Your task to perform on an android device: Add "logitech g pro" to the cart on amazon.com Image 0: 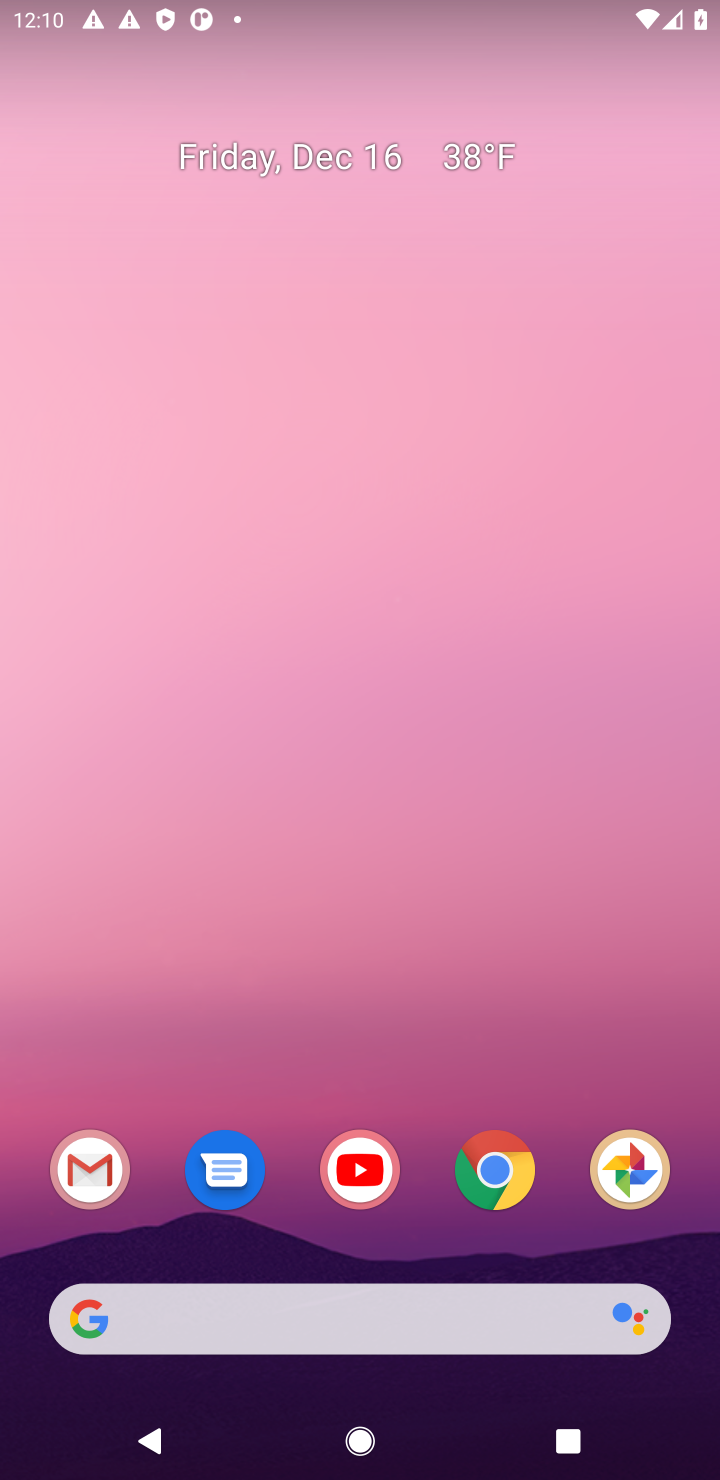
Step 0: click (498, 1198)
Your task to perform on an android device: Add "logitech g pro" to the cart on amazon.com Image 1: 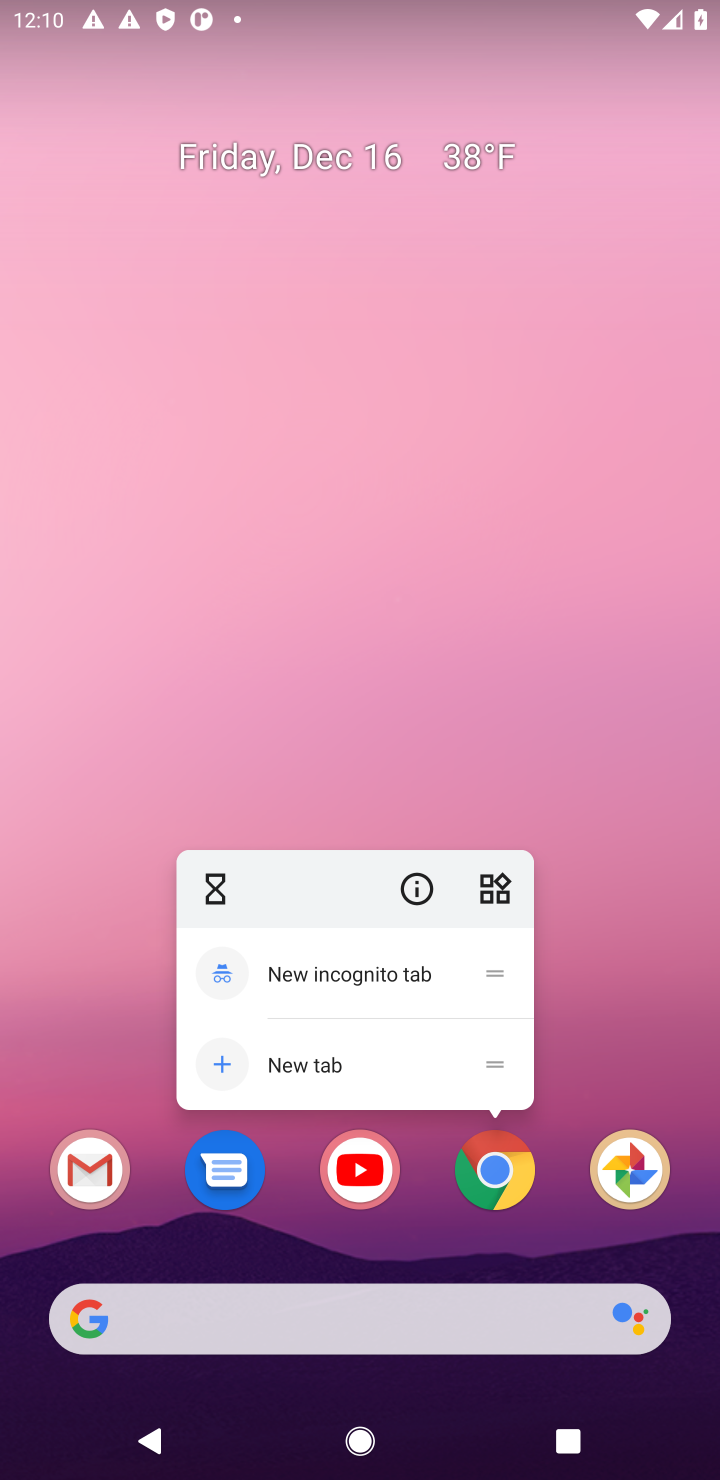
Step 1: click (490, 1180)
Your task to perform on an android device: Add "logitech g pro" to the cart on amazon.com Image 2: 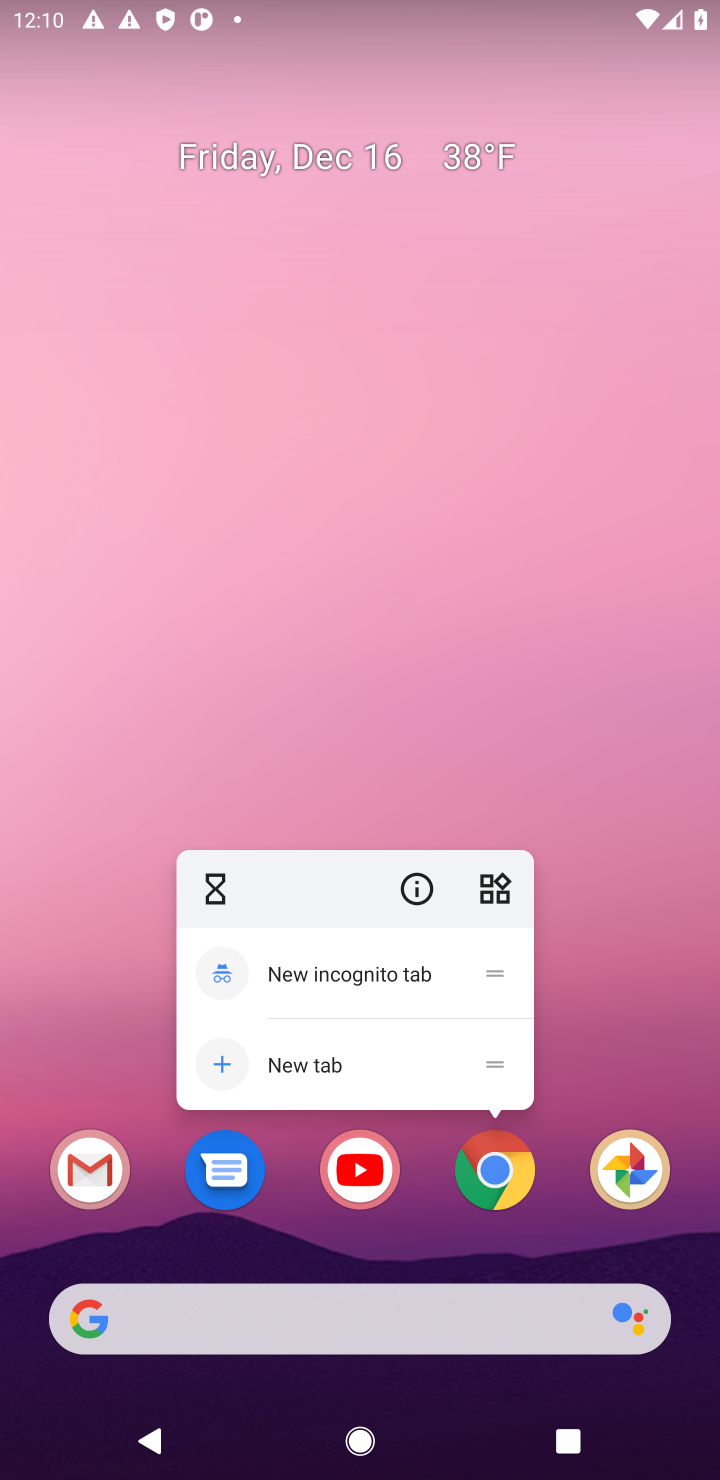
Step 2: click (490, 1180)
Your task to perform on an android device: Add "logitech g pro" to the cart on amazon.com Image 3: 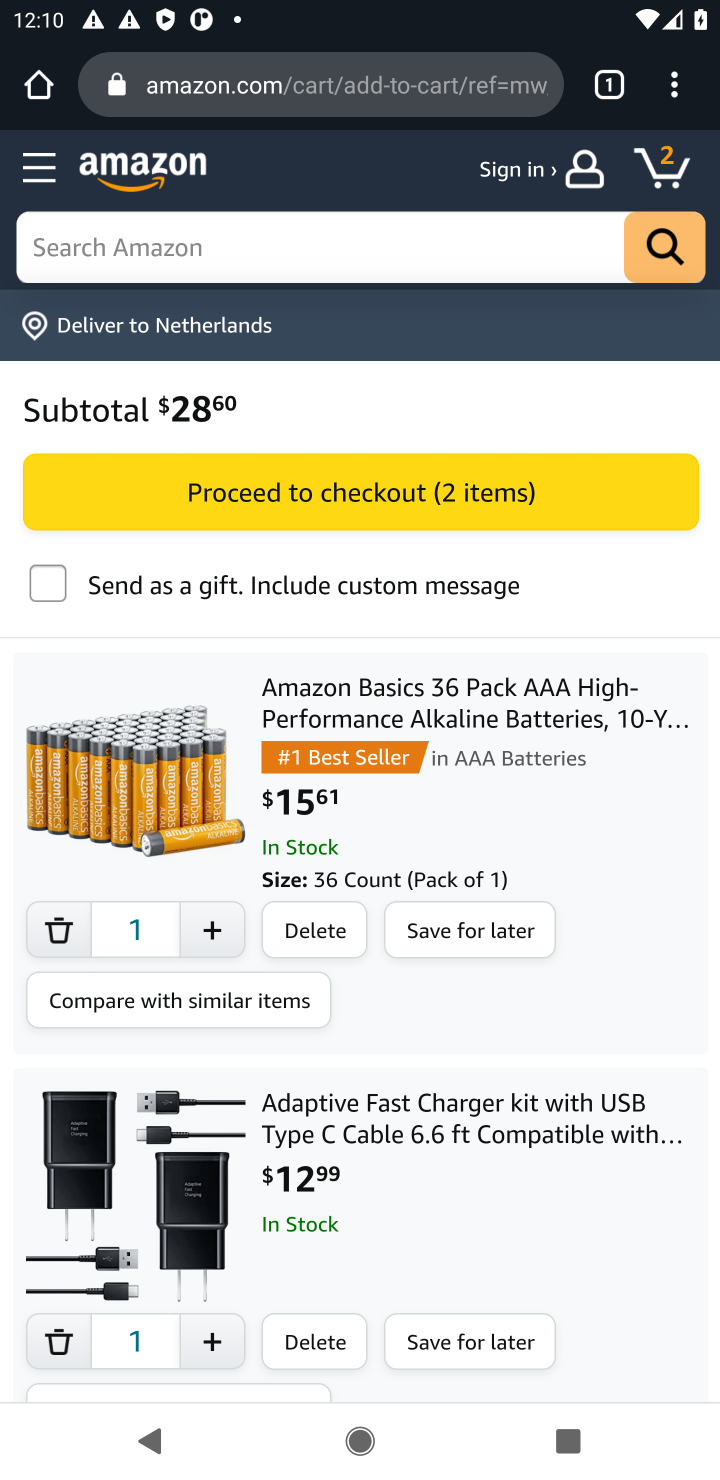
Step 3: click (296, 245)
Your task to perform on an android device: Add "logitech g pro" to the cart on amazon.com Image 4: 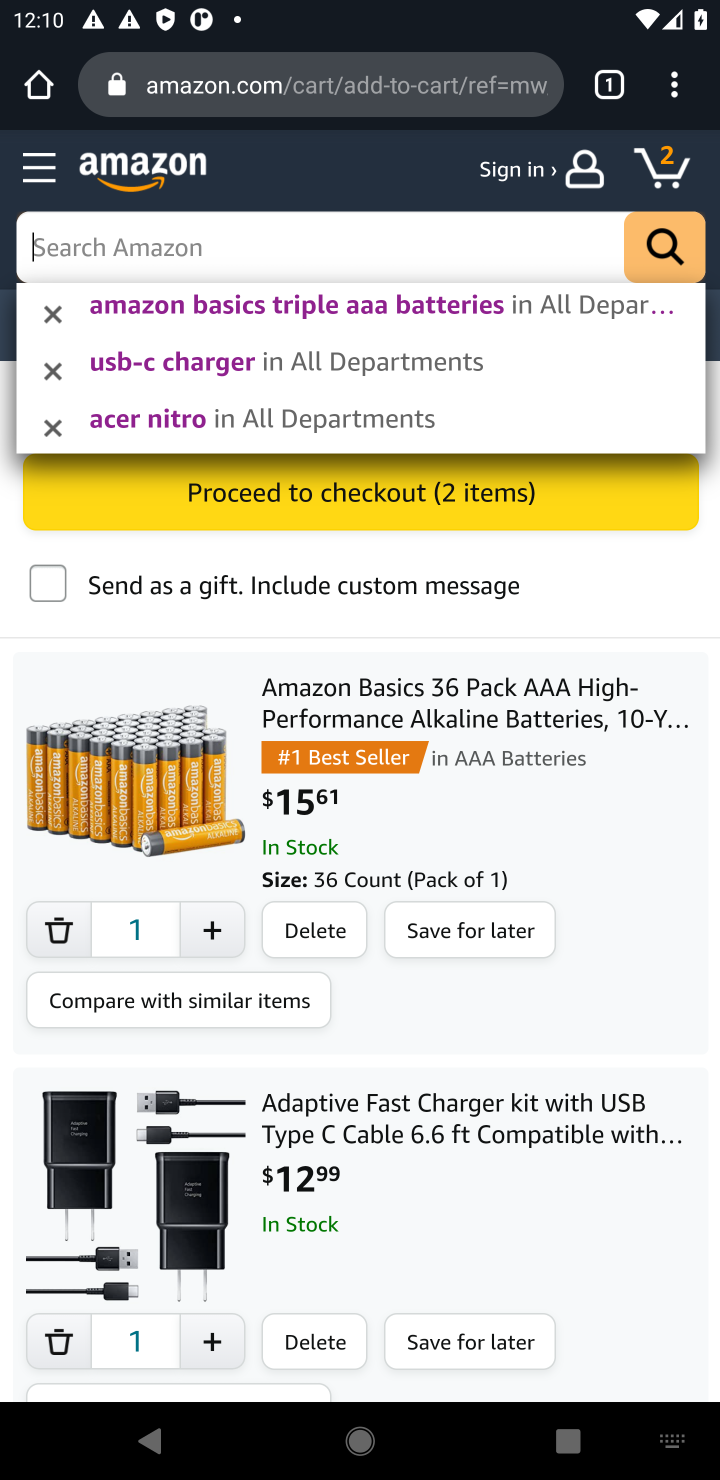
Step 4: type "logitech g pro"
Your task to perform on an android device: Add "logitech g pro" to the cart on amazon.com Image 5: 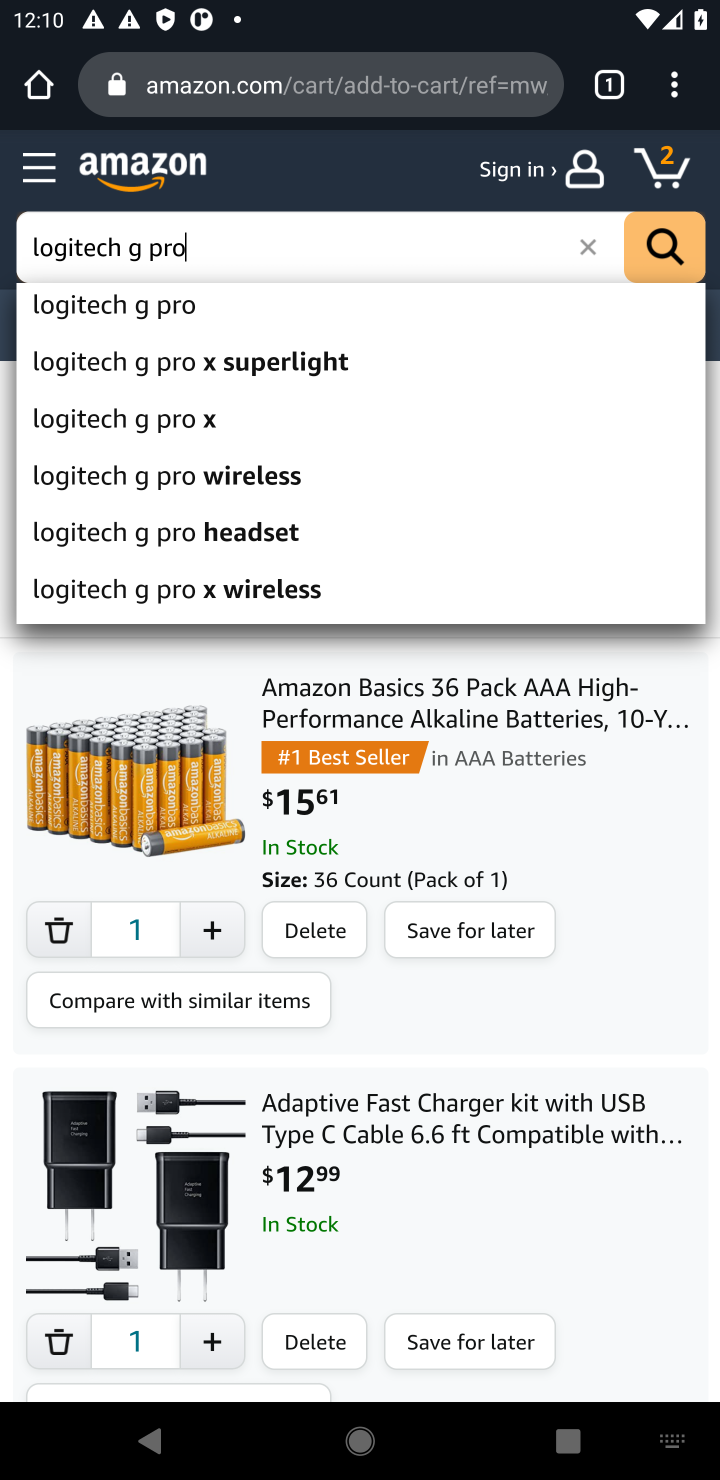
Step 5: click (147, 309)
Your task to perform on an android device: Add "logitech g pro" to the cart on amazon.com Image 6: 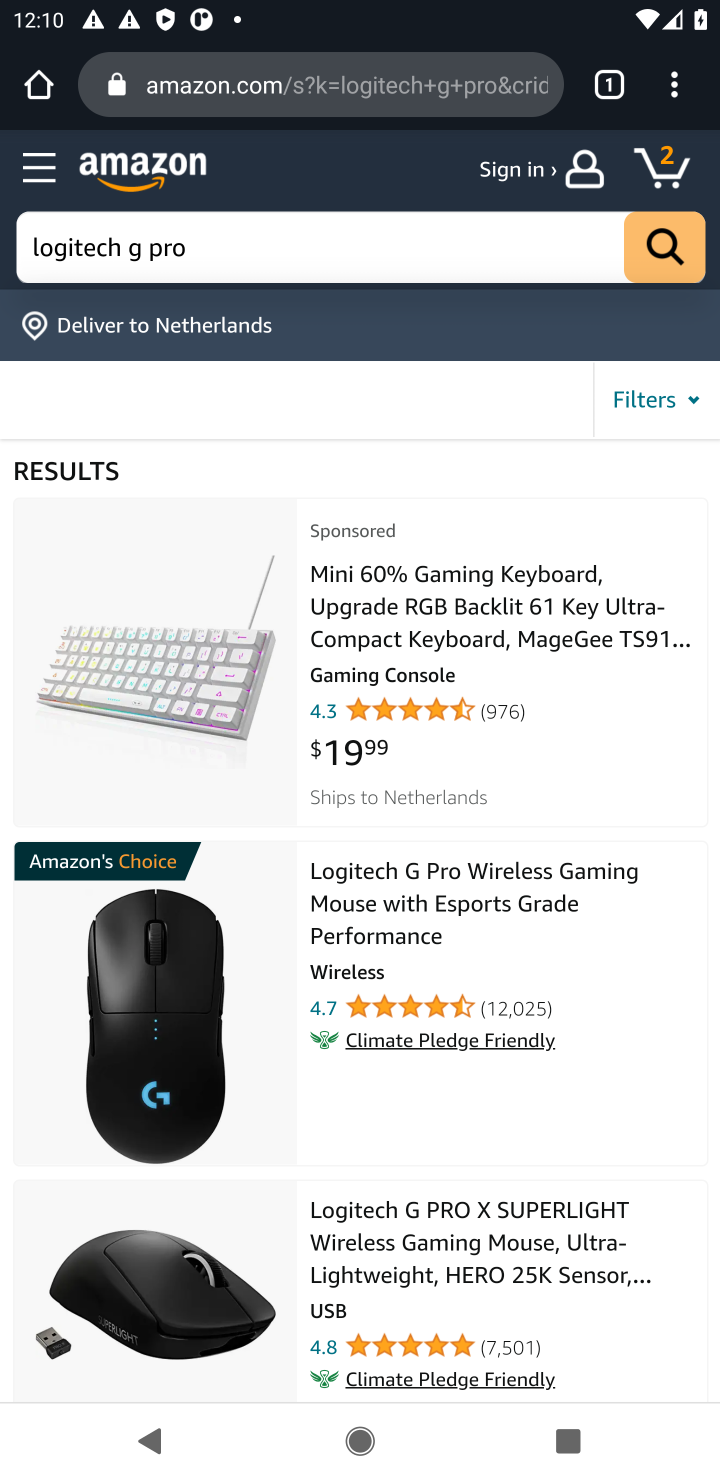
Step 6: drag from (243, 1041) to (253, 441)
Your task to perform on an android device: Add "logitech g pro" to the cart on amazon.com Image 7: 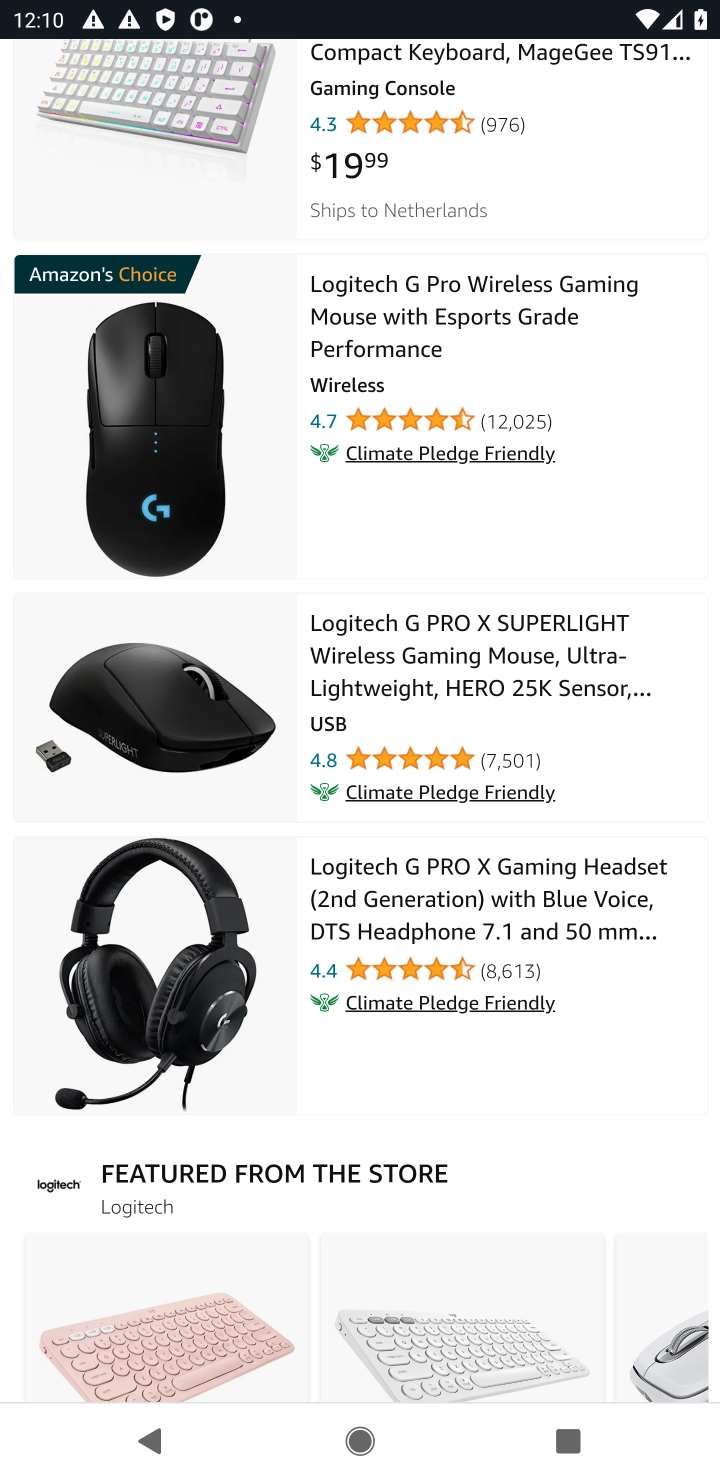
Step 7: drag from (280, 868) to (289, 388)
Your task to perform on an android device: Add "logitech g pro" to the cart on amazon.com Image 8: 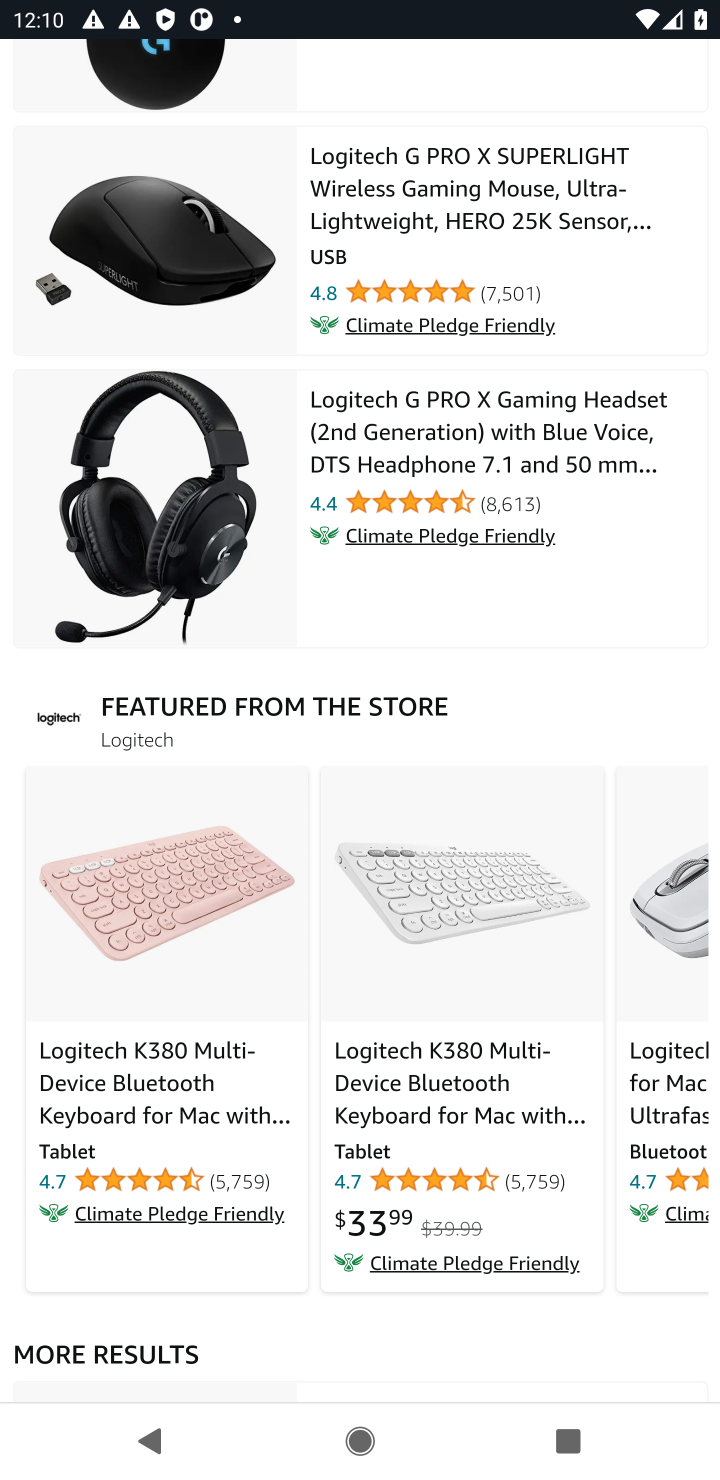
Step 8: drag from (244, 1014) to (286, 390)
Your task to perform on an android device: Add "logitech g pro" to the cart on amazon.com Image 9: 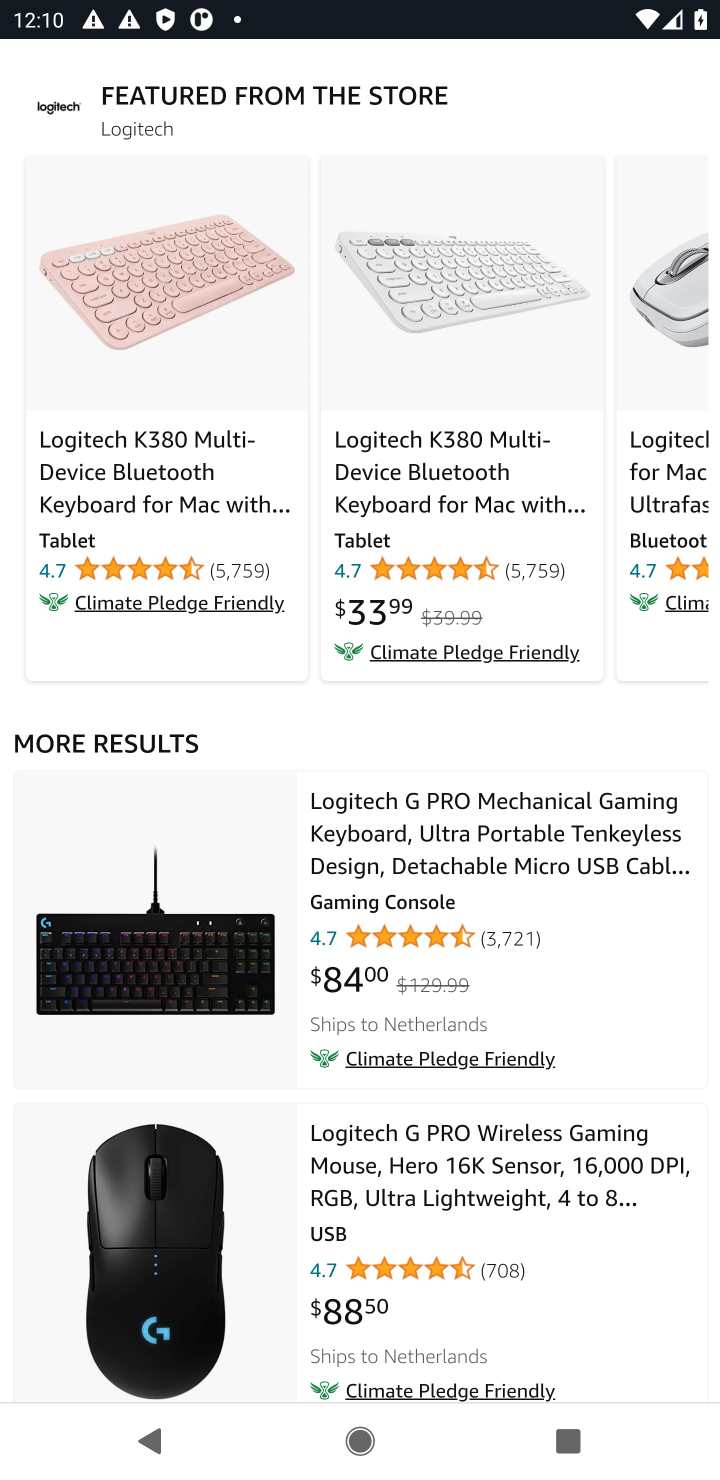
Step 9: click (434, 876)
Your task to perform on an android device: Add "logitech g pro" to the cart on amazon.com Image 10: 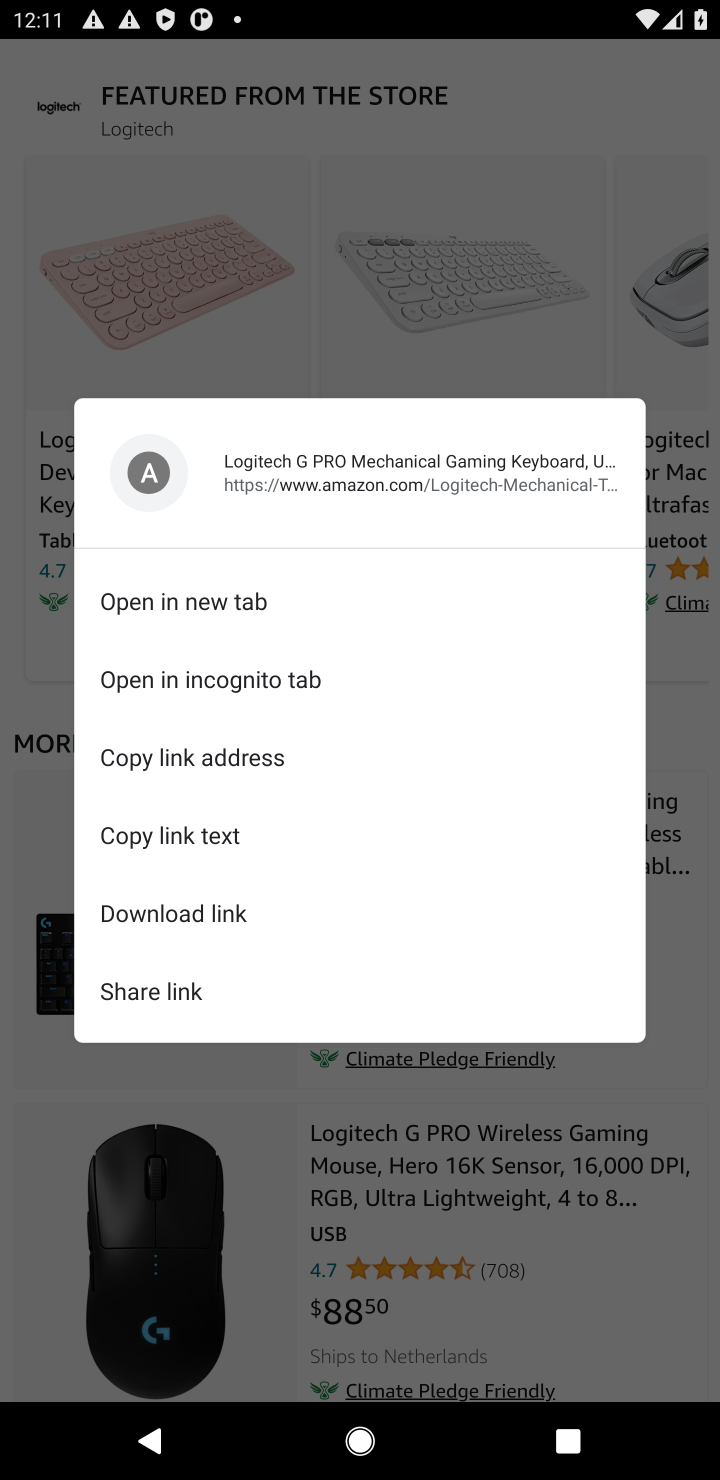
Step 10: click (675, 853)
Your task to perform on an android device: Add "logitech g pro" to the cart on amazon.com Image 11: 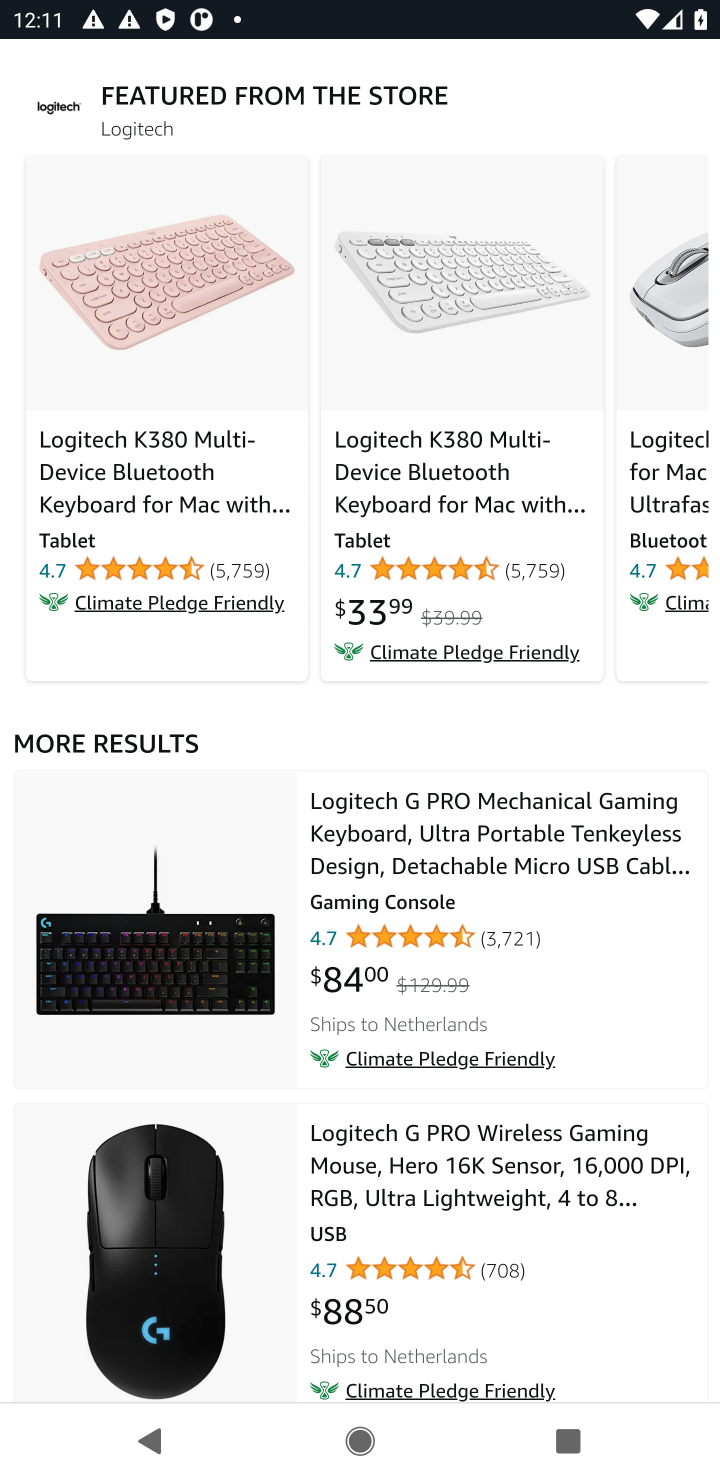
Step 11: click (522, 839)
Your task to perform on an android device: Add "logitech g pro" to the cart on amazon.com Image 12: 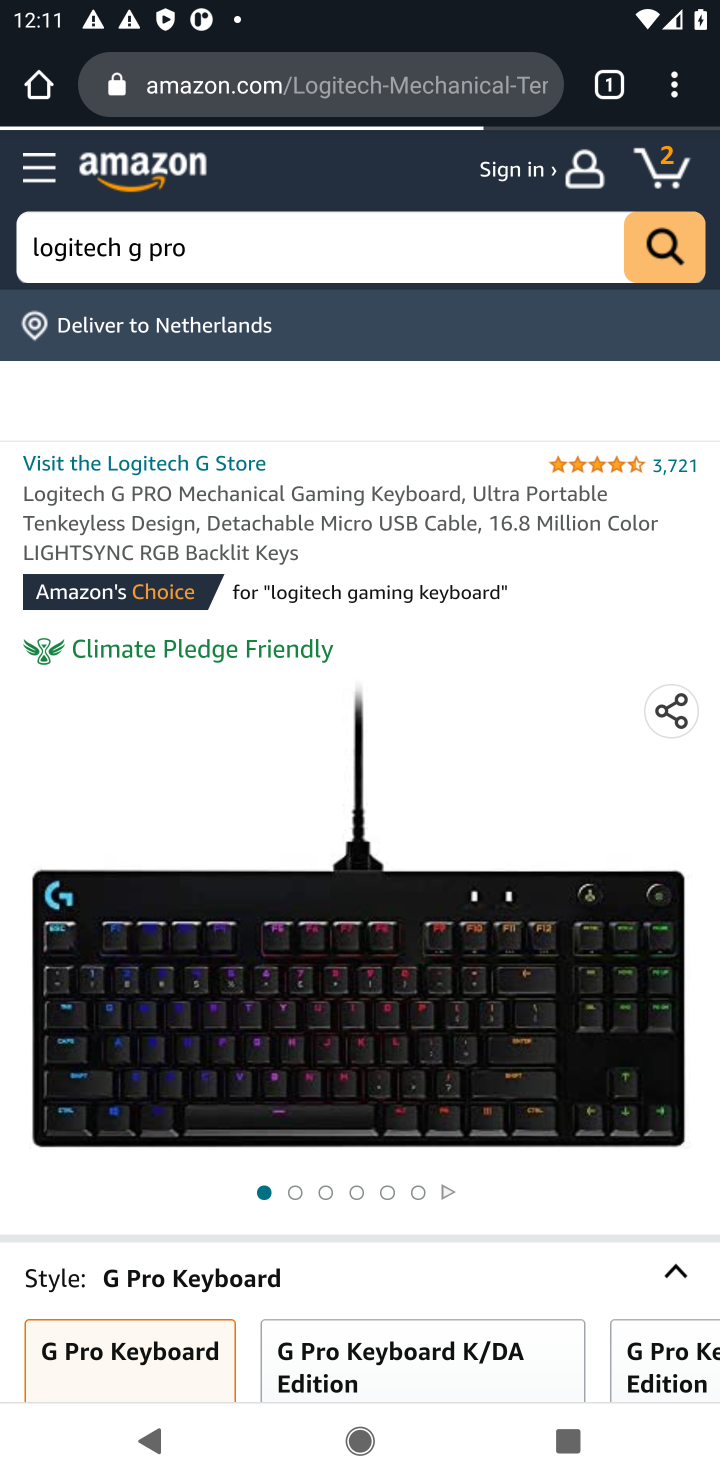
Step 12: drag from (395, 1187) to (395, 538)
Your task to perform on an android device: Add "logitech g pro" to the cart on amazon.com Image 13: 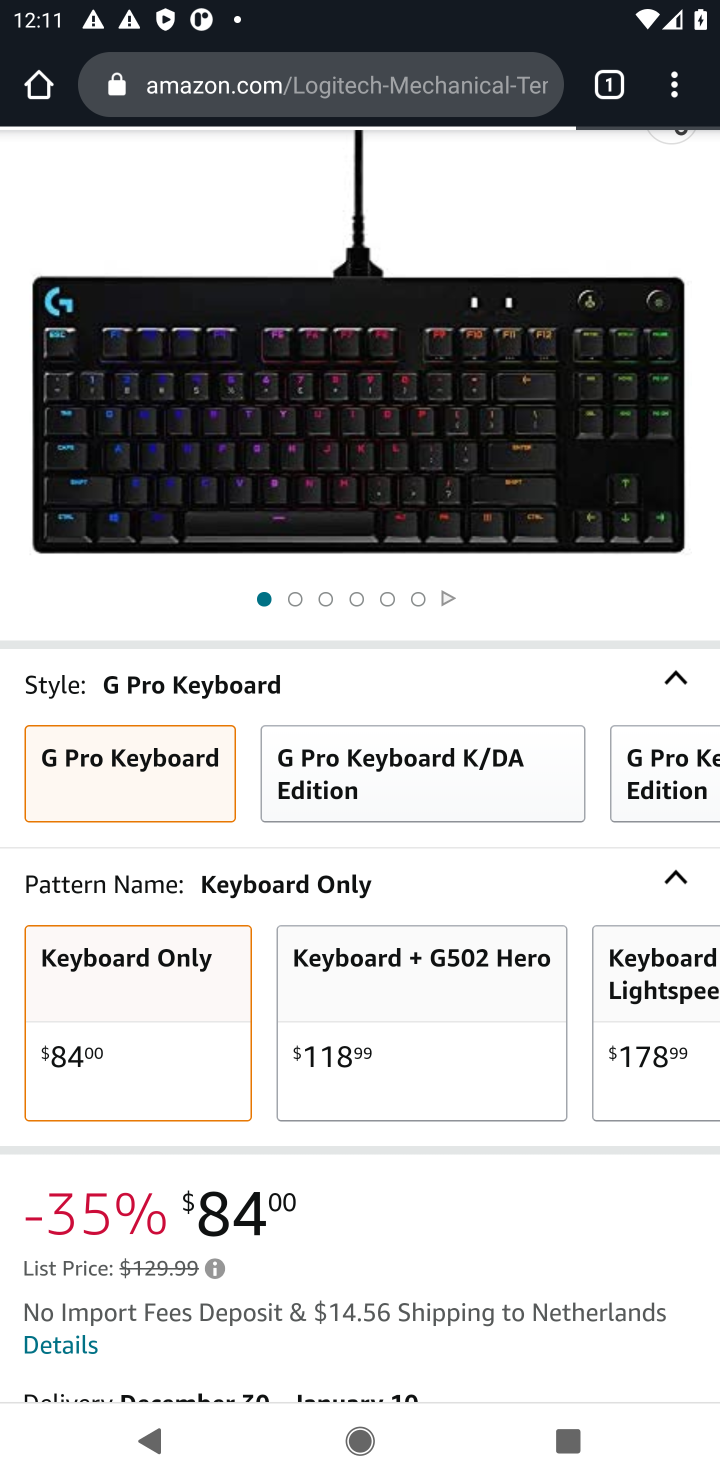
Step 13: drag from (319, 1058) to (334, 534)
Your task to perform on an android device: Add "logitech g pro" to the cart on amazon.com Image 14: 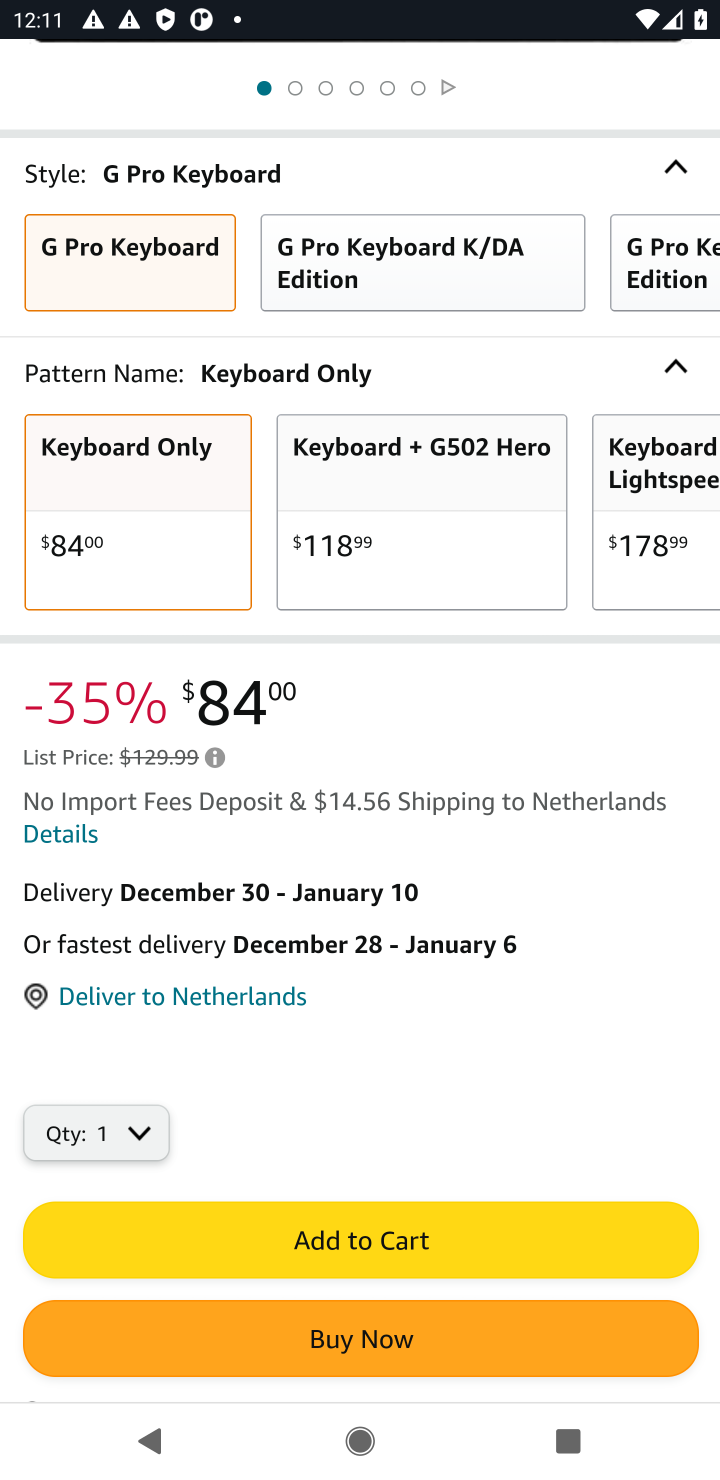
Step 14: click (320, 1227)
Your task to perform on an android device: Add "logitech g pro" to the cart on amazon.com Image 15: 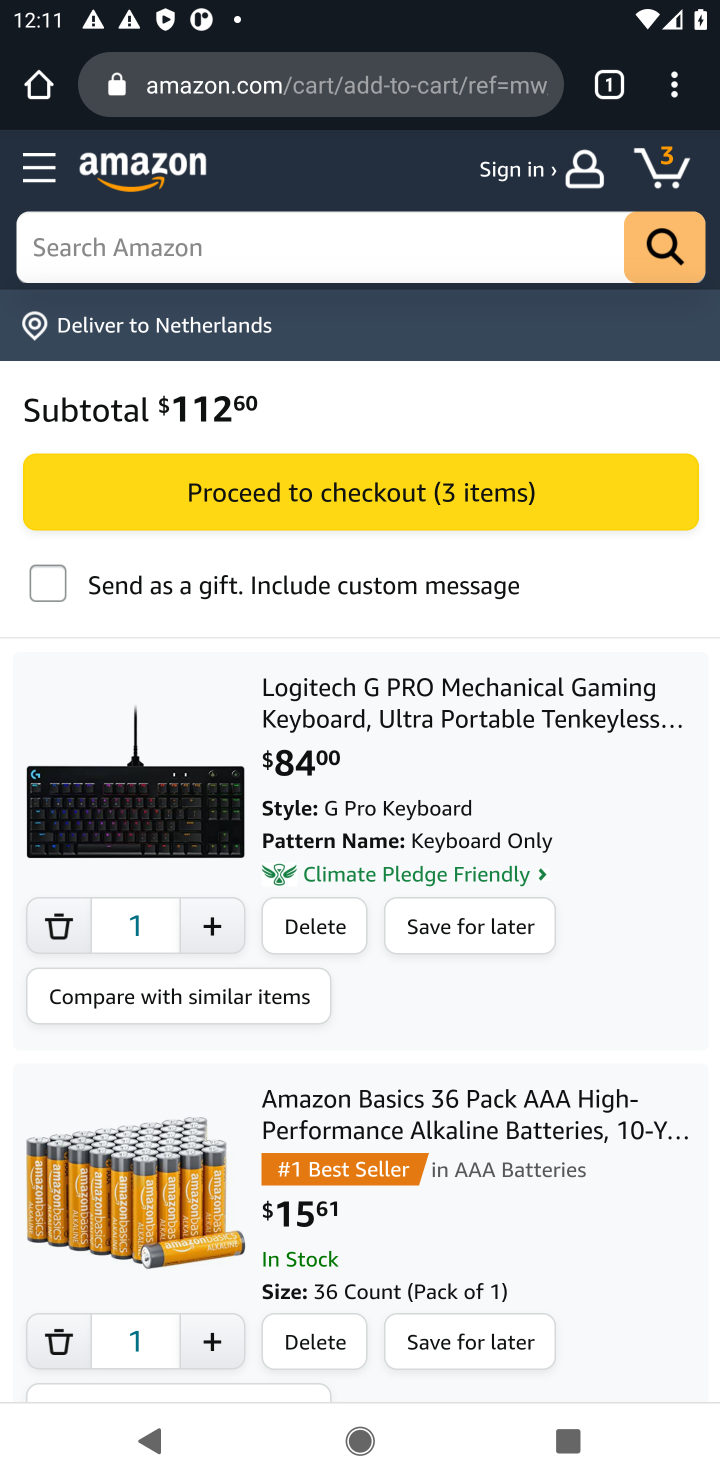
Step 15: task complete